Your task to perform on an android device: turn on notifications settings in the gmail app Image 0: 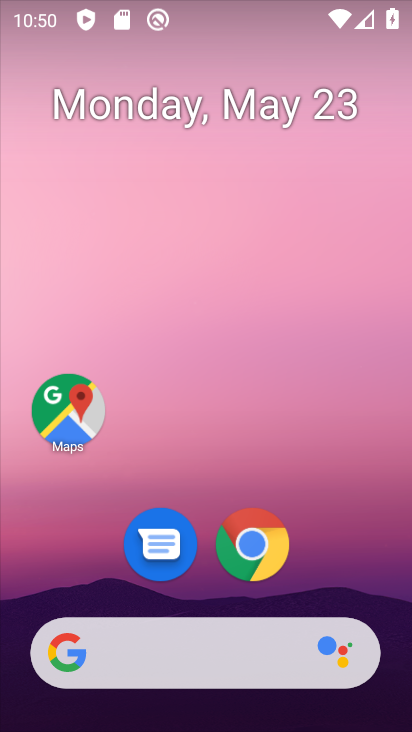
Step 0: drag from (385, 629) to (357, 103)
Your task to perform on an android device: turn on notifications settings in the gmail app Image 1: 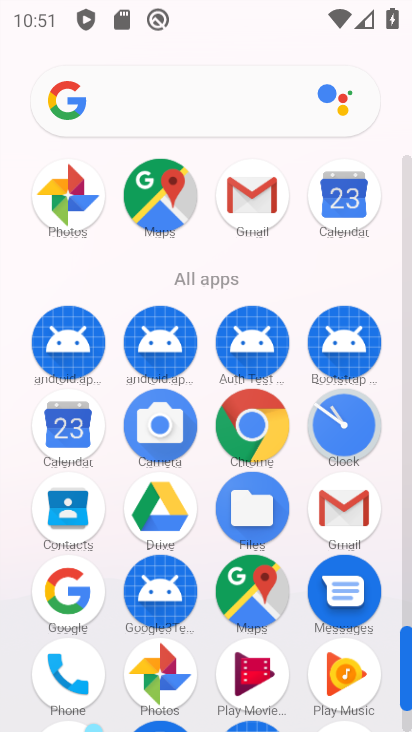
Step 1: click (340, 511)
Your task to perform on an android device: turn on notifications settings in the gmail app Image 2: 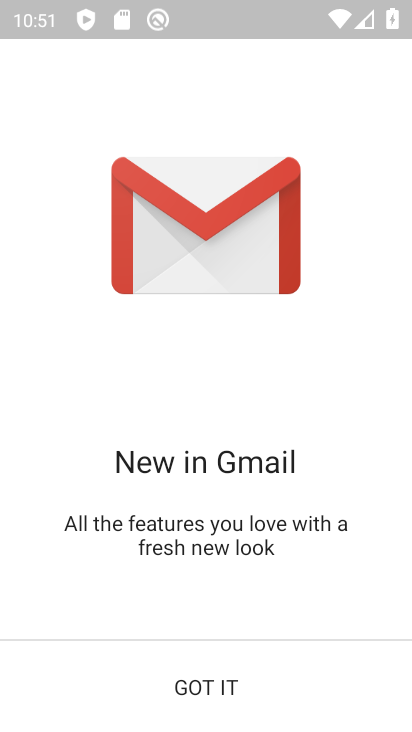
Step 2: click (199, 685)
Your task to perform on an android device: turn on notifications settings in the gmail app Image 3: 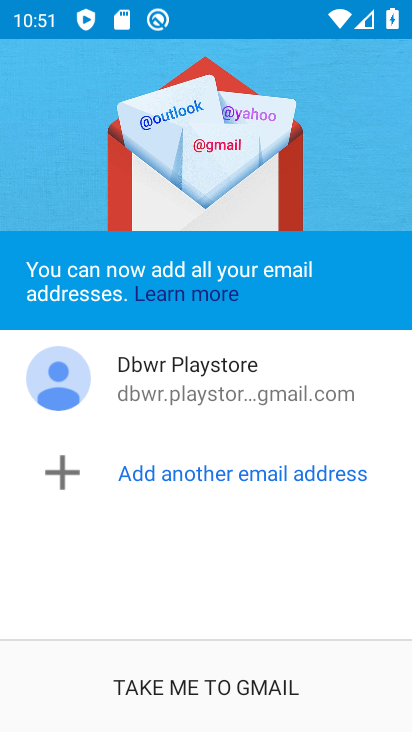
Step 3: click (199, 685)
Your task to perform on an android device: turn on notifications settings in the gmail app Image 4: 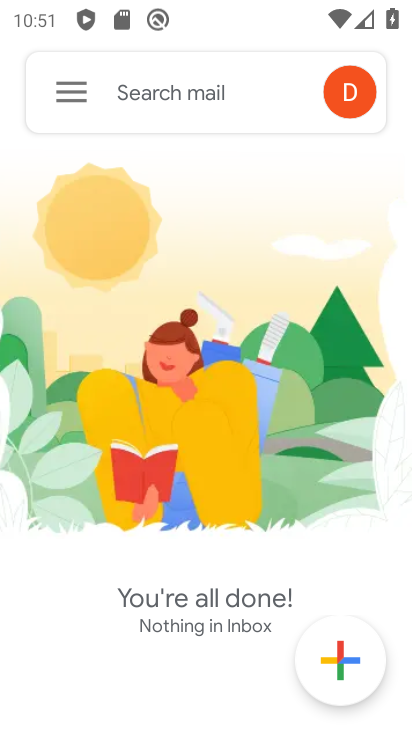
Step 4: click (69, 78)
Your task to perform on an android device: turn on notifications settings in the gmail app Image 5: 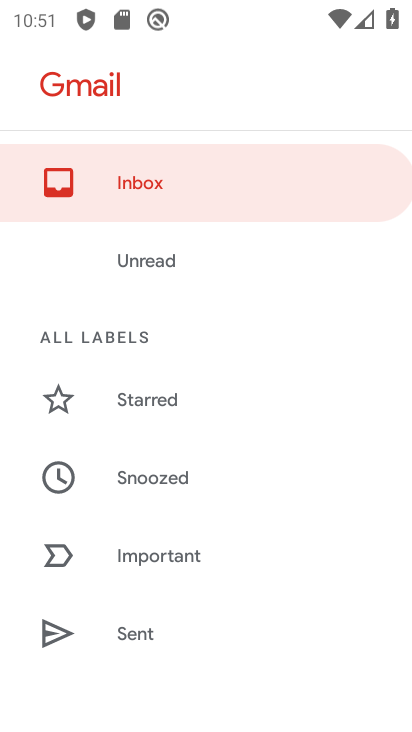
Step 5: drag from (265, 657) to (220, 51)
Your task to perform on an android device: turn on notifications settings in the gmail app Image 6: 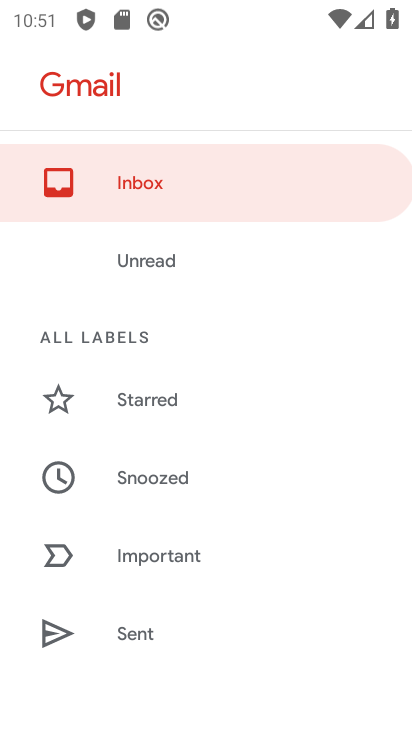
Step 6: drag from (192, 592) to (250, 92)
Your task to perform on an android device: turn on notifications settings in the gmail app Image 7: 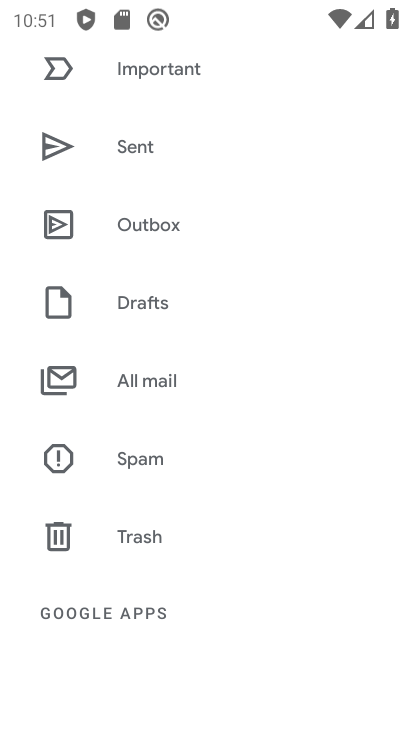
Step 7: drag from (220, 576) to (227, 32)
Your task to perform on an android device: turn on notifications settings in the gmail app Image 8: 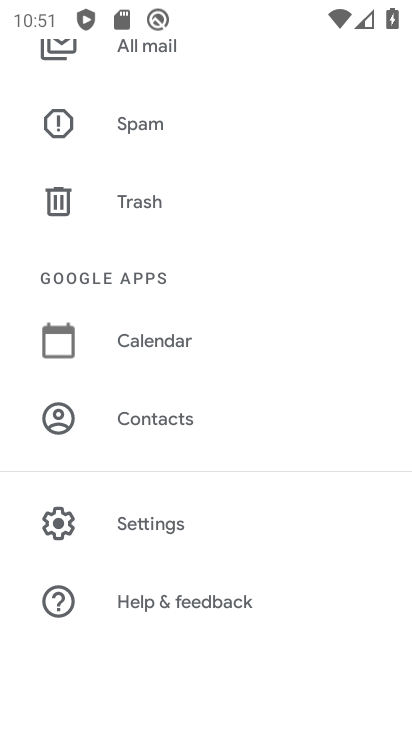
Step 8: click (132, 516)
Your task to perform on an android device: turn on notifications settings in the gmail app Image 9: 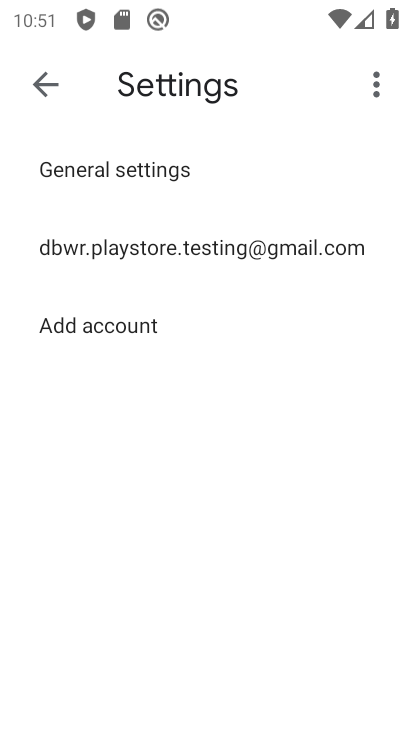
Step 9: click (175, 257)
Your task to perform on an android device: turn on notifications settings in the gmail app Image 10: 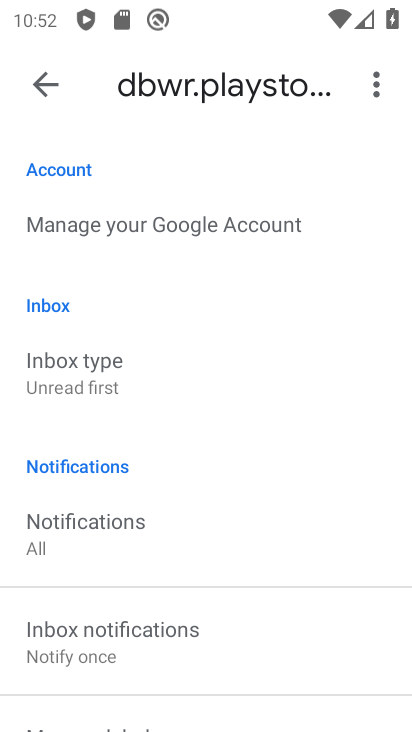
Step 10: drag from (168, 553) to (210, 186)
Your task to perform on an android device: turn on notifications settings in the gmail app Image 11: 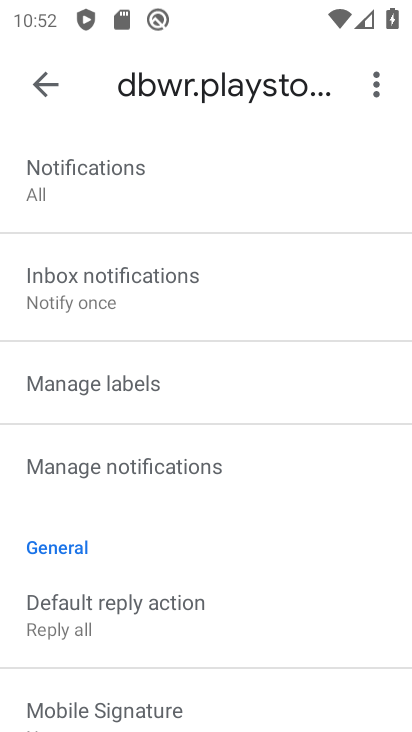
Step 11: click (104, 474)
Your task to perform on an android device: turn on notifications settings in the gmail app Image 12: 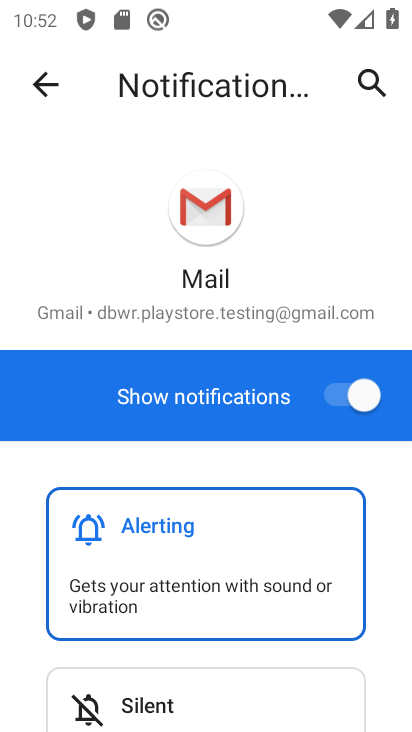
Step 12: task complete